Your task to perform on an android device: Show me productivity apps on the Play Store Image 0: 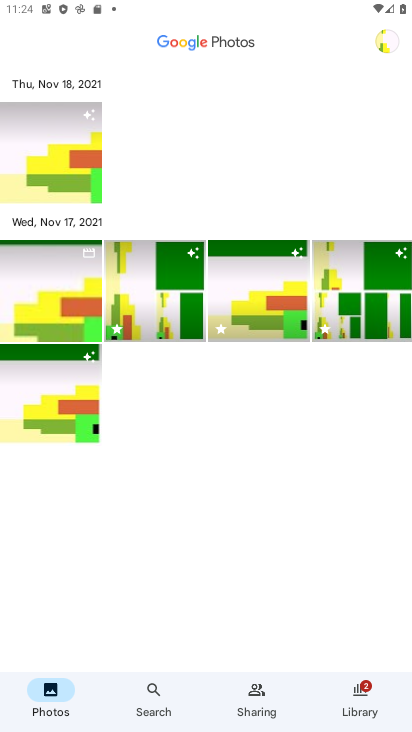
Step 0: press home button
Your task to perform on an android device: Show me productivity apps on the Play Store Image 1: 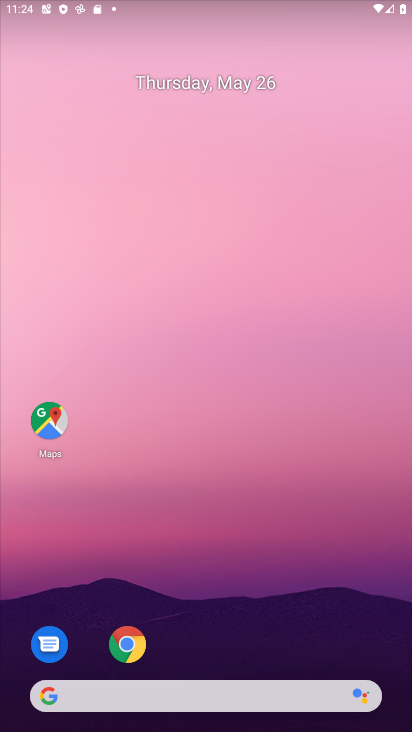
Step 1: drag from (367, 606) to (287, 88)
Your task to perform on an android device: Show me productivity apps on the Play Store Image 2: 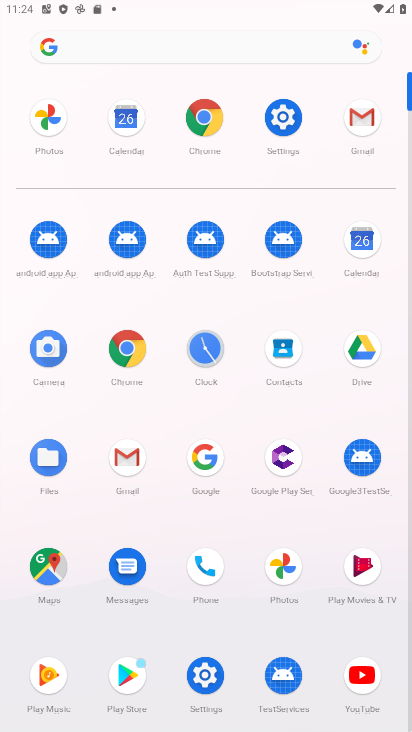
Step 2: click (129, 686)
Your task to perform on an android device: Show me productivity apps on the Play Store Image 3: 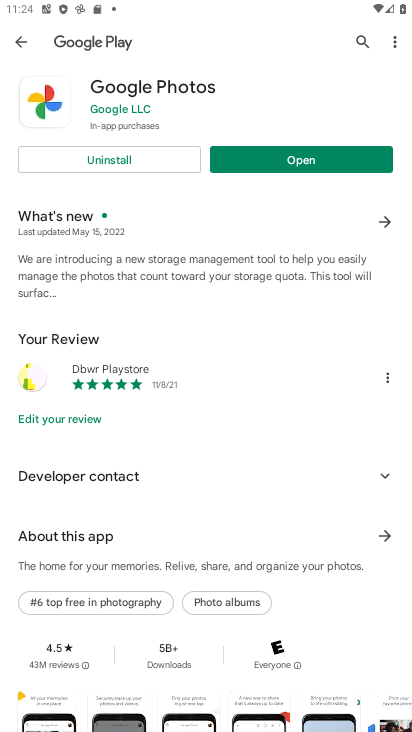
Step 3: press back button
Your task to perform on an android device: Show me productivity apps on the Play Store Image 4: 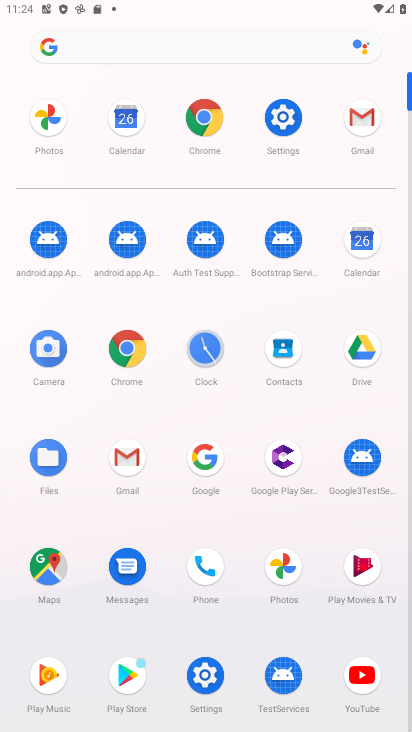
Step 4: click (132, 678)
Your task to perform on an android device: Show me productivity apps on the Play Store Image 5: 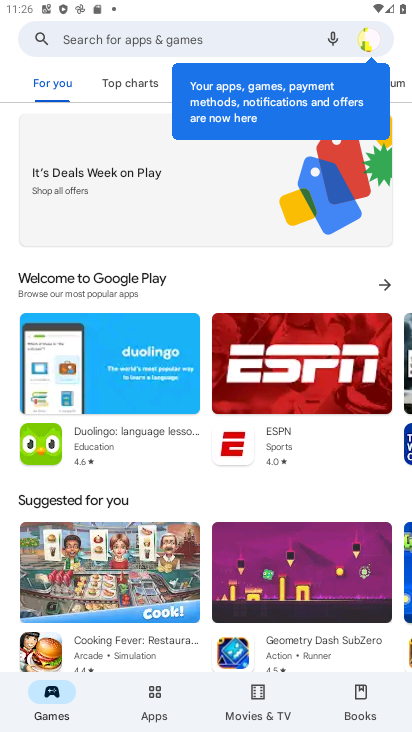
Step 5: task complete